Your task to perform on an android device: turn off picture-in-picture Image 0: 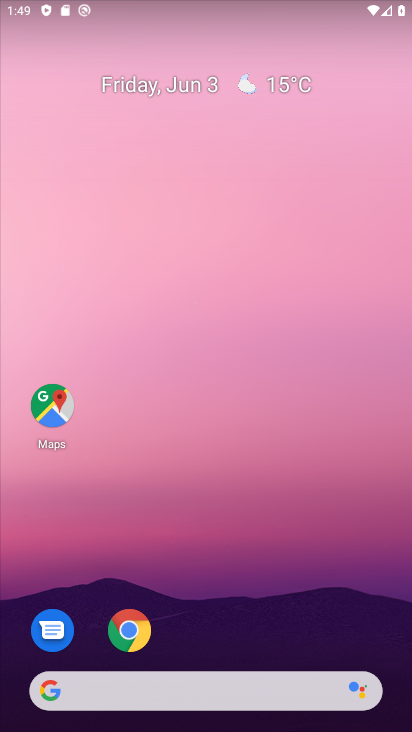
Step 0: press home button
Your task to perform on an android device: turn off picture-in-picture Image 1: 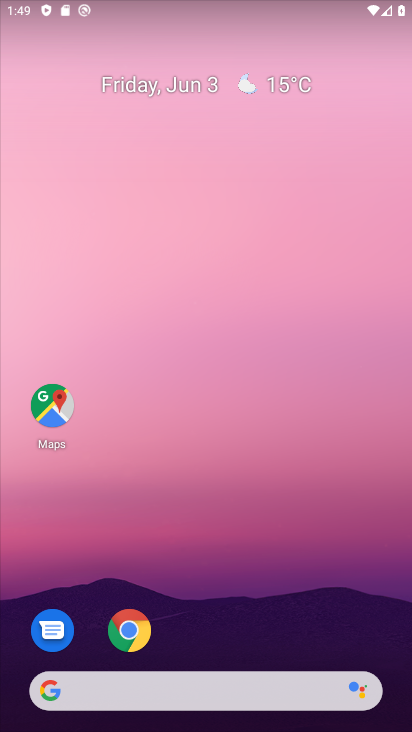
Step 1: click (132, 624)
Your task to perform on an android device: turn off picture-in-picture Image 2: 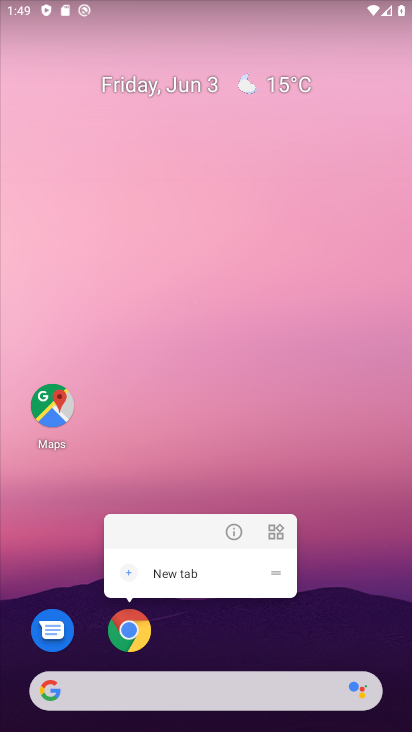
Step 2: click (227, 533)
Your task to perform on an android device: turn off picture-in-picture Image 3: 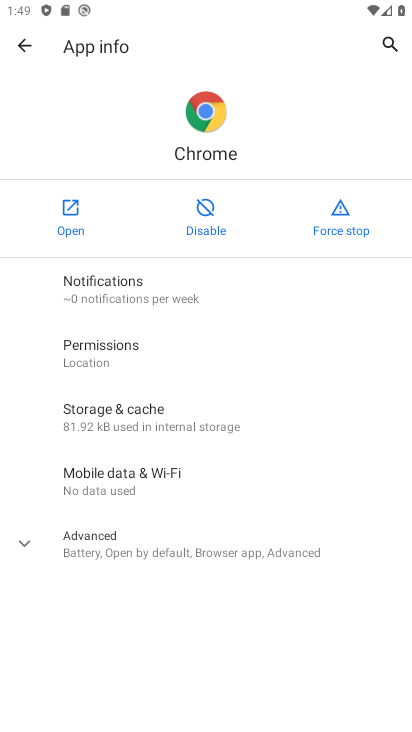
Step 3: click (109, 297)
Your task to perform on an android device: turn off picture-in-picture Image 4: 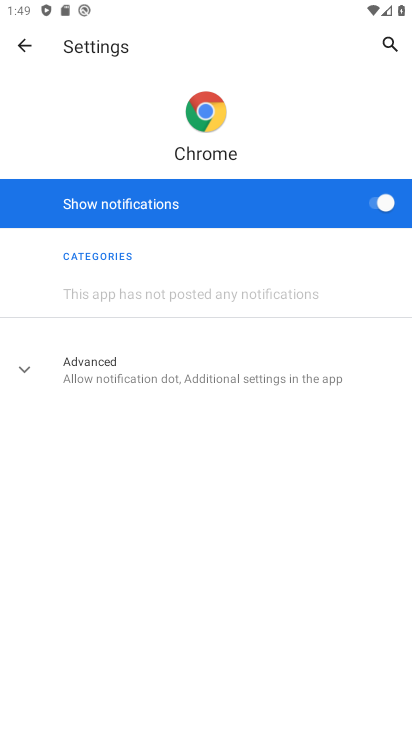
Step 4: click (32, 51)
Your task to perform on an android device: turn off picture-in-picture Image 5: 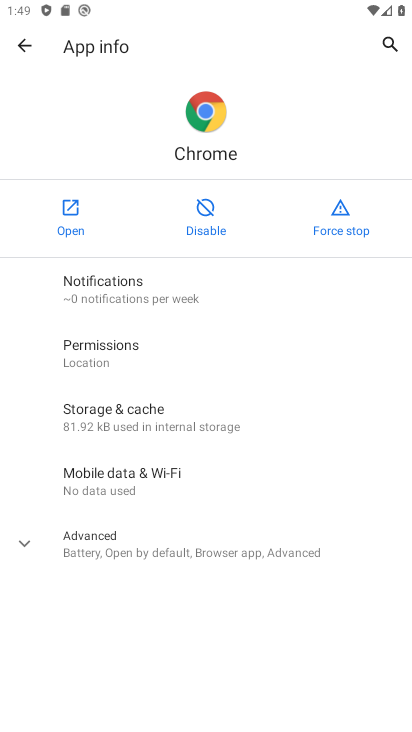
Step 5: click (111, 525)
Your task to perform on an android device: turn off picture-in-picture Image 6: 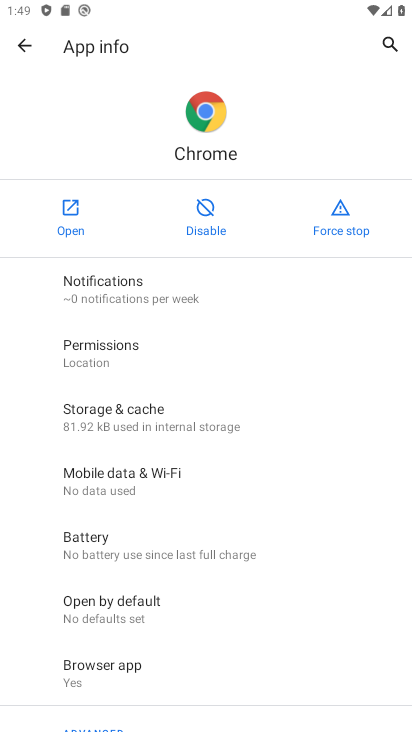
Step 6: drag from (76, 703) to (165, 78)
Your task to perform on an android device: turn off picture-in-picture Image 7: 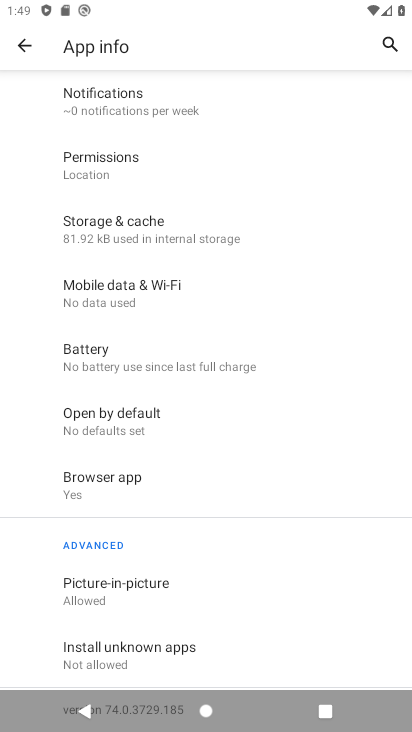
Step 7: click (137, 590)
Your task to perform on an android device: turn off picture-in-picture Image 8: 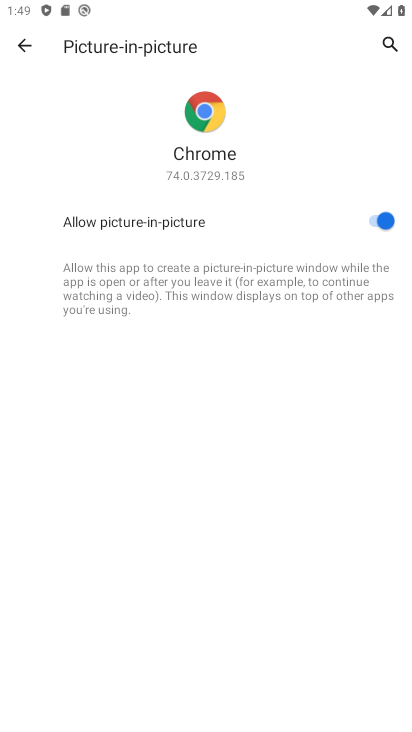
Step 8: click (166, 233)
Your task to perform on an android device: turn off picture-in-picture Image 9: 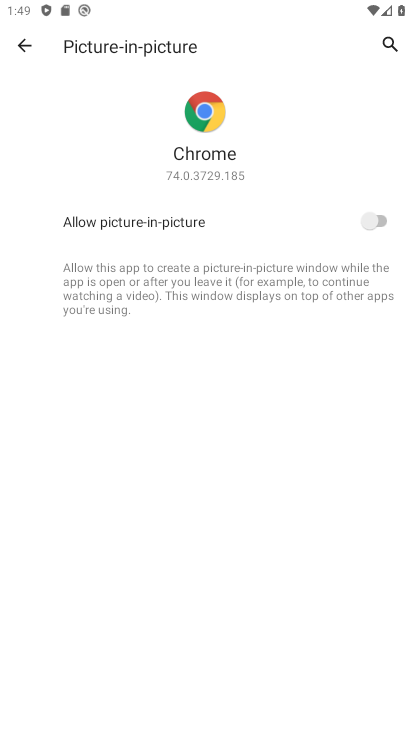
Step 9: task complete